Your task to perform on an android device: Go to eBay Image 0: 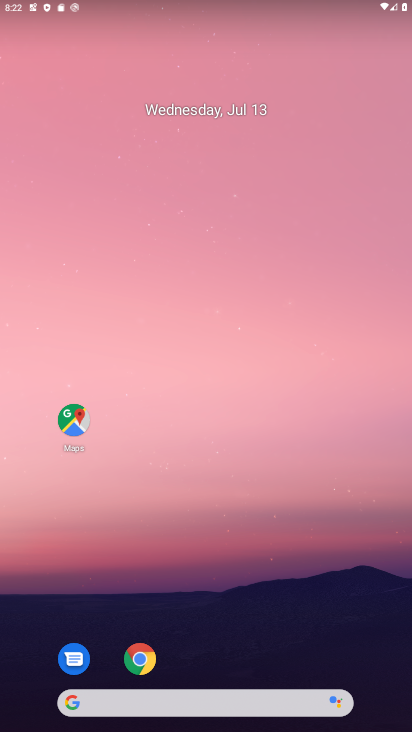
Step 0: click (127, 658)
Your task to perform on an android device: Go to eBay Image 1: 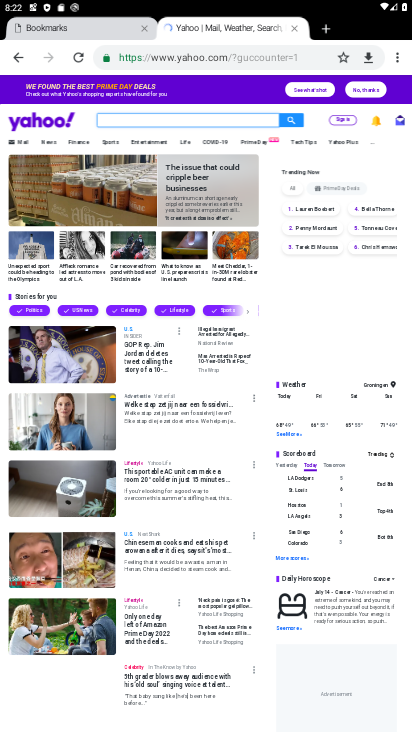
Step 1: click (325, 32)
Your task to perform on an android device: Go to eBay Image 2: 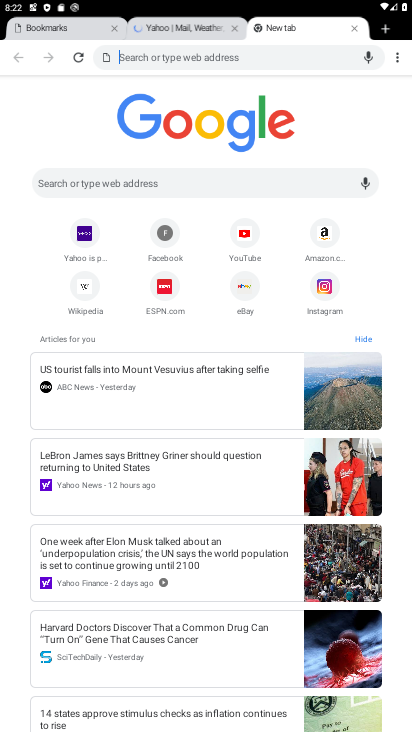
Step 2: click (241, 290)
Your task to perform on an android device: Go to eBay Image 3: 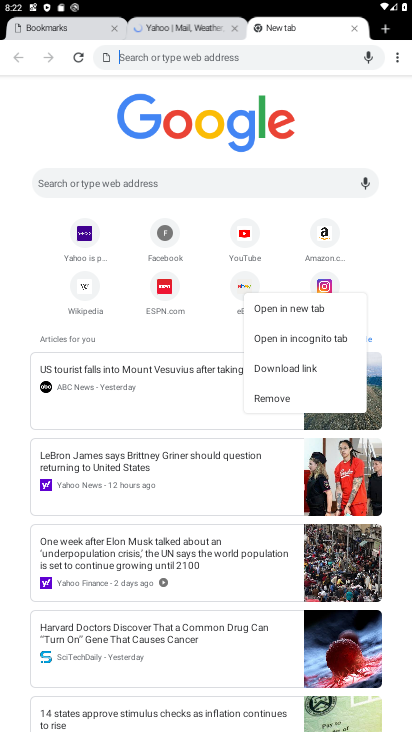
Step 3: click (247, 284)
Your task to perform on an android device: Go to eBay Image 4: 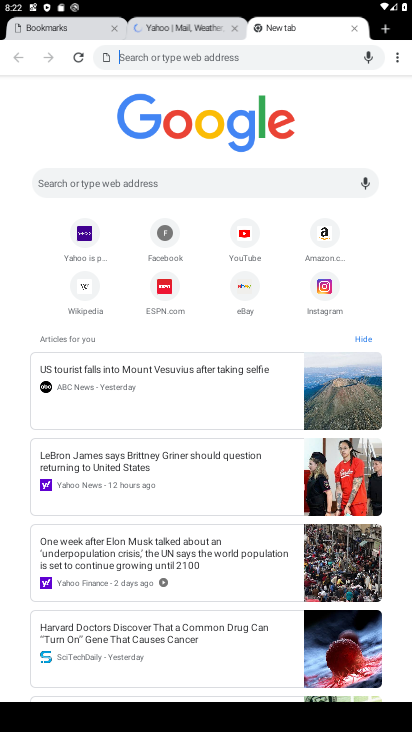
Step 4: click (247, 286)
Your task to perform on an android device: Go to eBay Image 5: 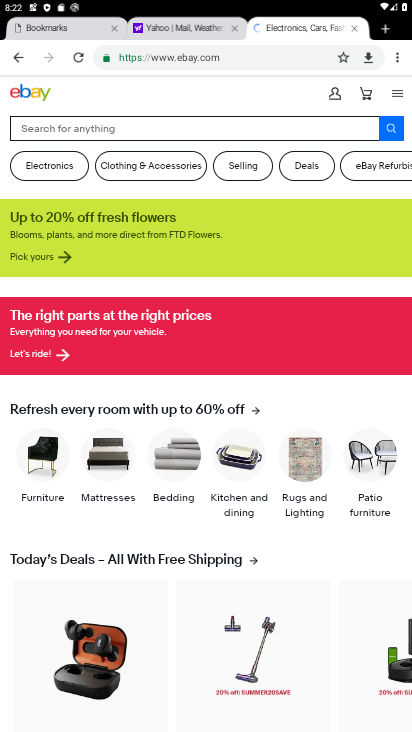
Step 5: task complete